Your task to perform on an android device: Go to network settings Image 0: 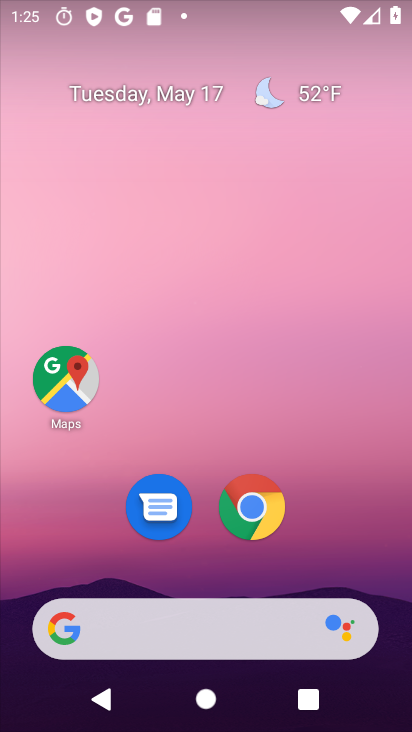
Step 0: drag from (216, 551) to (184, 159)
Your task to perform on an android device: Go to network settings Image 1: 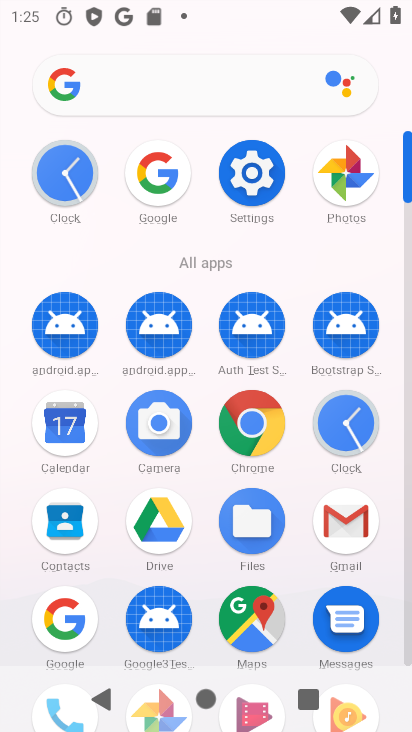
Step 1: click (254, 162)
Your task to perform on an android device: Go to network settings Image 2: 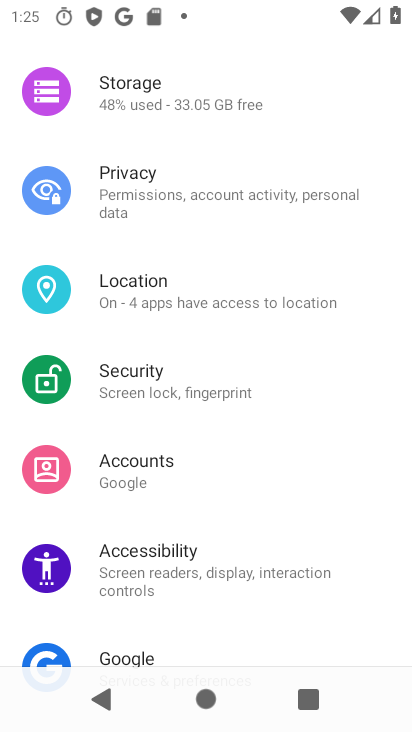
Step 2: drag from (201, 147) to (228, 538)
Your task to perform on an android device: Go to network settings Image 3: 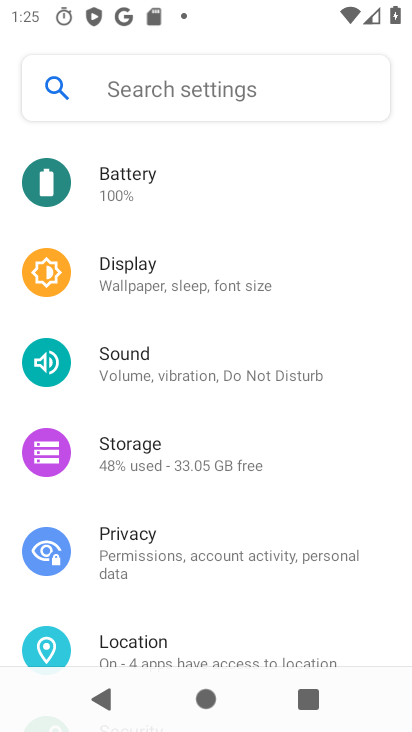
Step 3: drag from (168, 177) to (237, 534)
Your task to perform on an android device: Go to network settings Image 4: 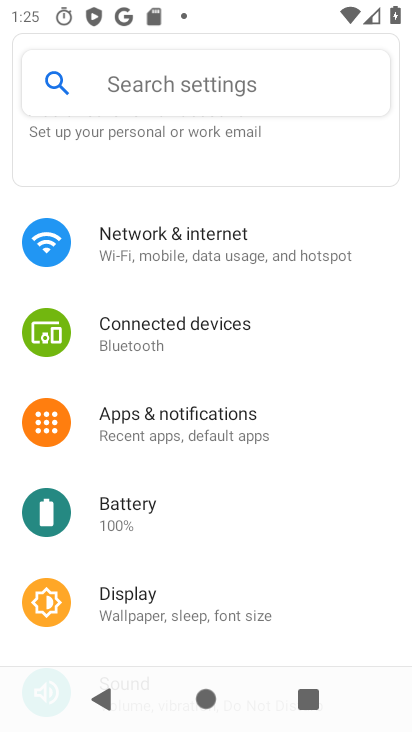
Step 4: click (166, 432)
Your task to perform on an android device: Go to network settings Image 5: 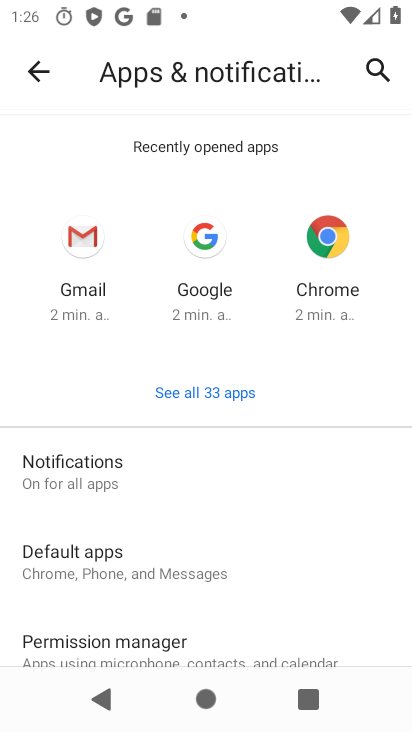
Step 5: task complete